Your task to perform on an android device: Open Google Maps and go to "Timeline" Image 0: 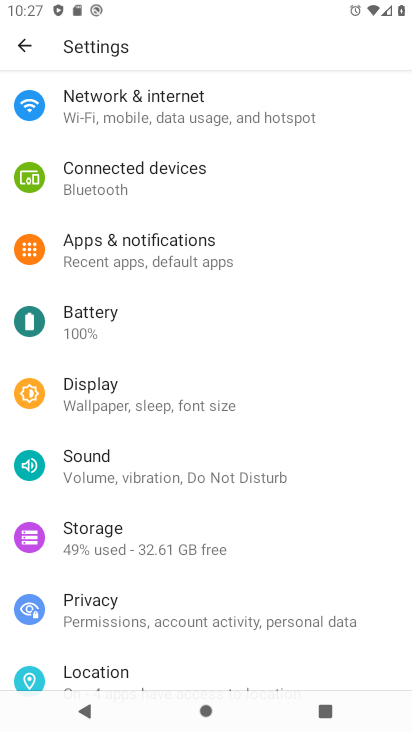
Step 0: press back button
Your task to perform on an android device: Open Google Maps and go to "Timeline" Image 1: 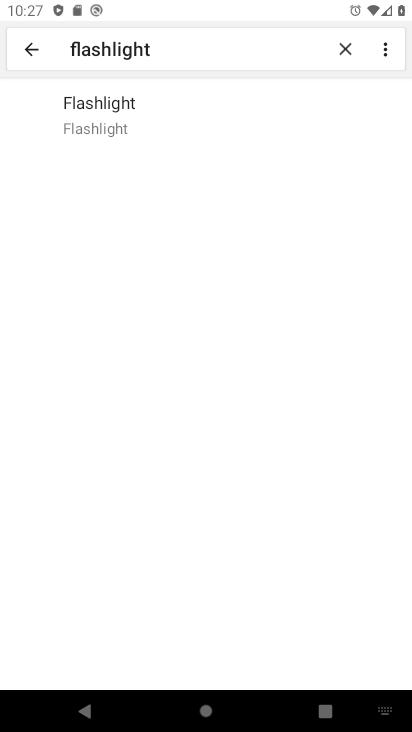
Step 1: press back button
Your task to perform on an android device: Open Google Maps and go to "Timeline" Image 2: 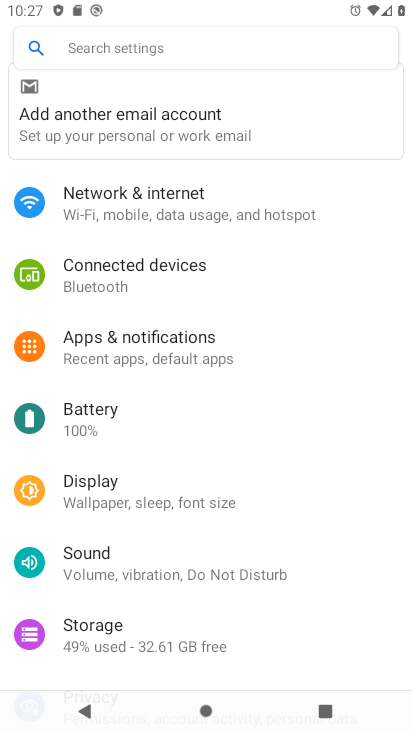
Step 2: press back button
Your task to perform on an android device: Open Google Maps and go to "Timeline" Image 3: 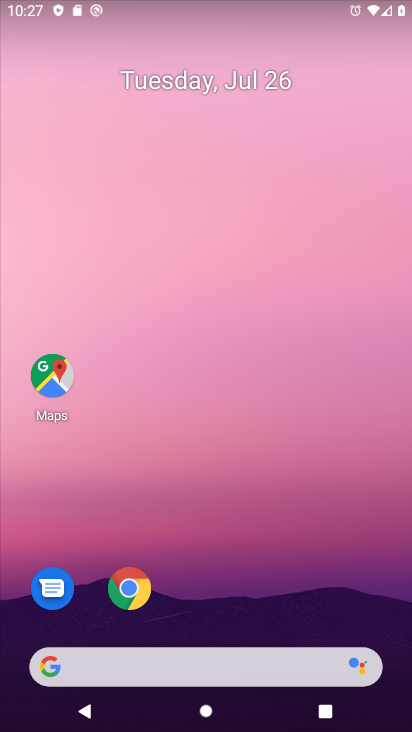
Step 3: click (44, 379)
Your task to perform on an android device: Open Google Maps and go to "Timeline" Image 4: 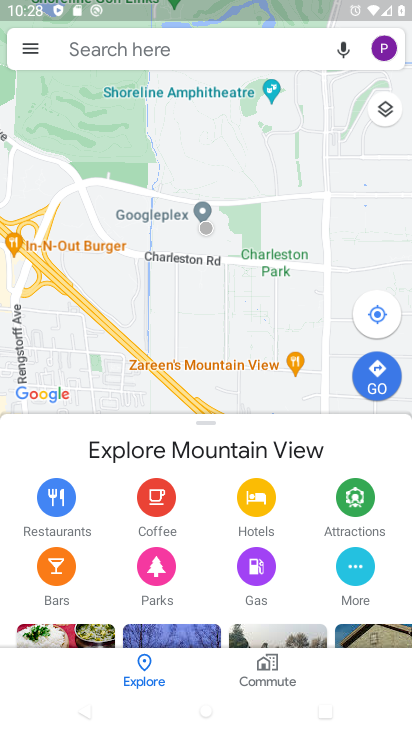
Step 4: click (31, 46)
Your task to perform on an android device: Open Google Maps and go to "Timeline" Image 5: 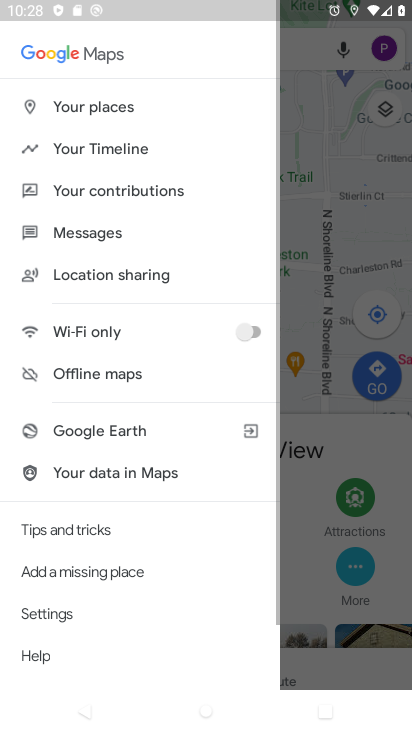
Step 5: click (112, 150)
Your task to perform on an android device: Open Google Maps and go to "Timeline" Image 6: 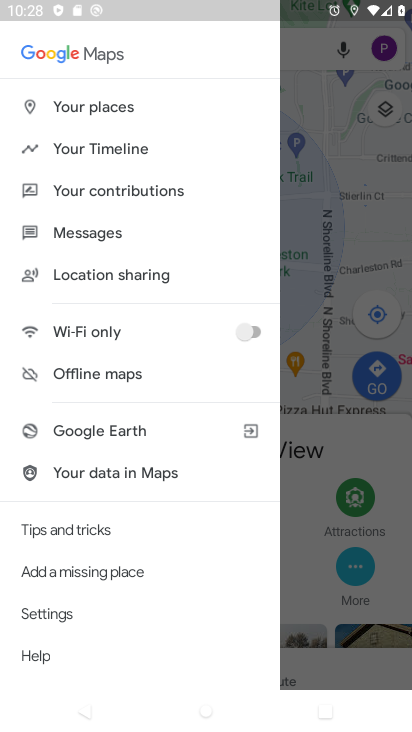
Step 6: click (106, 140)
Your task to perform on an android device: Open Google Maps and go to "Timeline" Image 7: 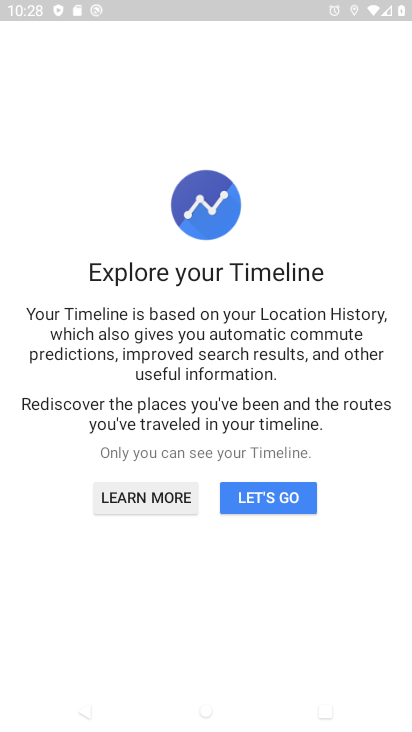
Step 7: task complete